Your task to perform on an android device: turn on location history Image 0: 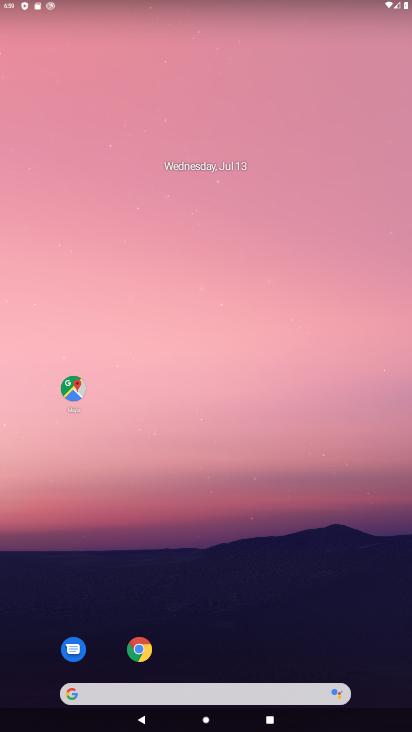
Step 0: drag from (225, 695) to (368, 294)
Your task to perform on an android device: turn on location history Image 1: 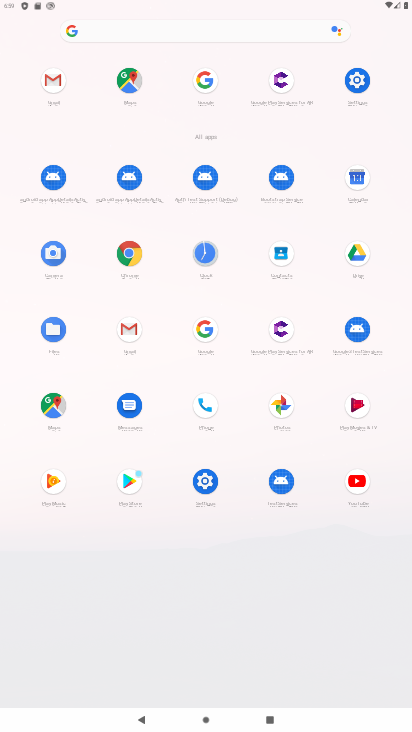
Step 1: click (359, 81)
Your task to perform on an android device: turn on location history Image 2: 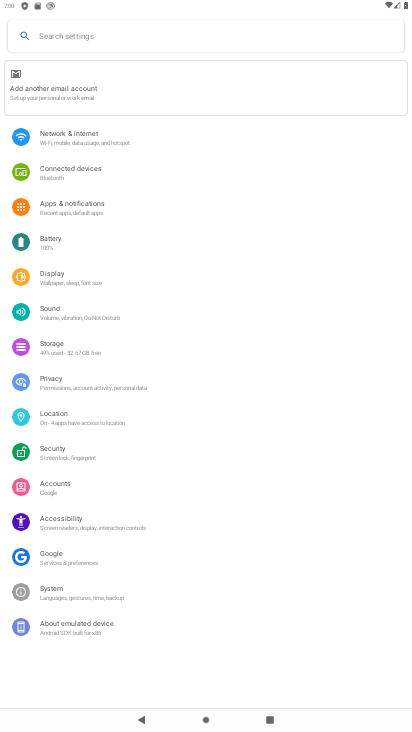
Step 2: click (63, 420)
Your task to perform on an android device: turn on location history Image 3: 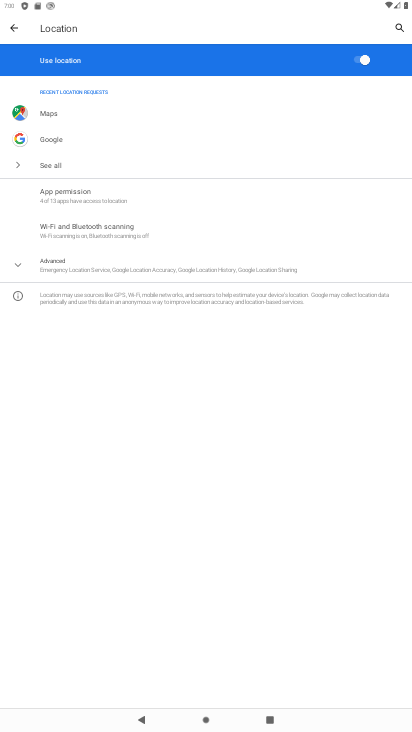
Step 3: click (149, 273)
Your task to perform on an android device: turn on location history Image 4: 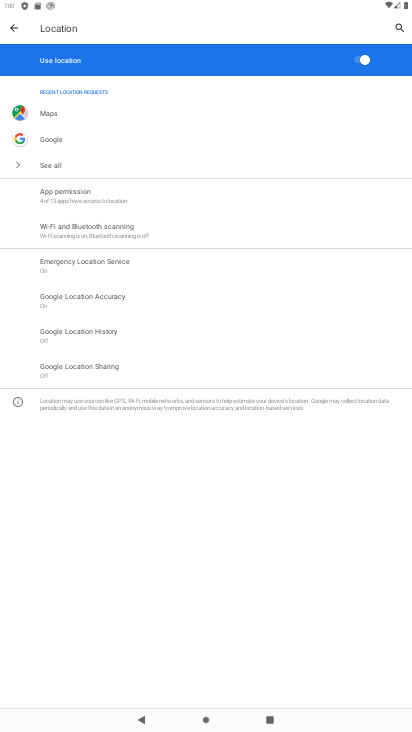
Step 4: click (97, 335)
Your task to perform on an android device: turn on location history Image 5: 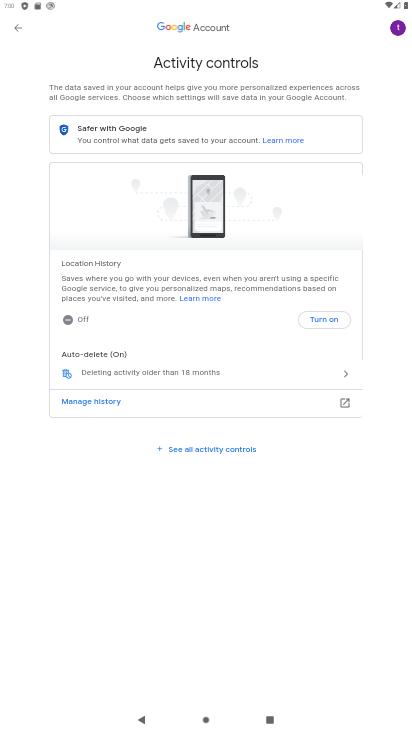
Step 5: click (320, 318)
Your task to perform on an android device: turn on location history Image 6: 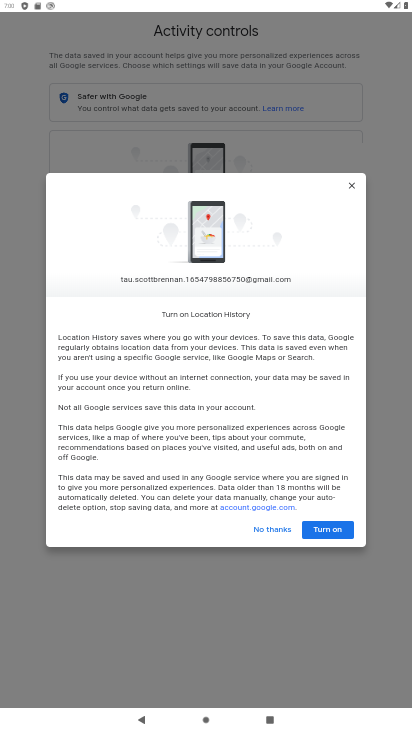
Step 6: click (324, 526)
Your task to perform on an android device: turn on location history Image 7: 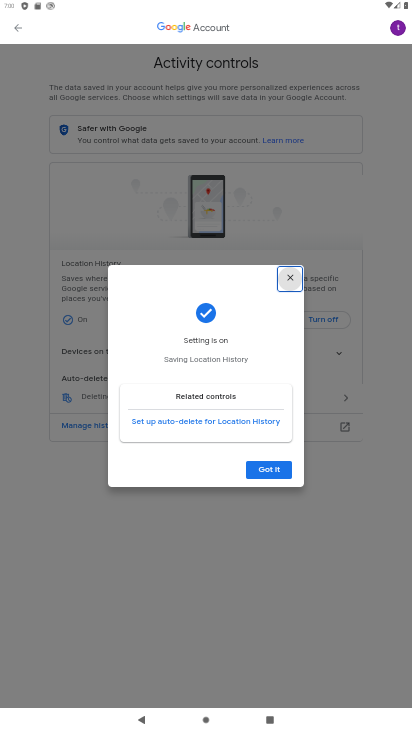
Step 7: click (267, 471)
Your task to perform on an android device: turn on location history Image 8: 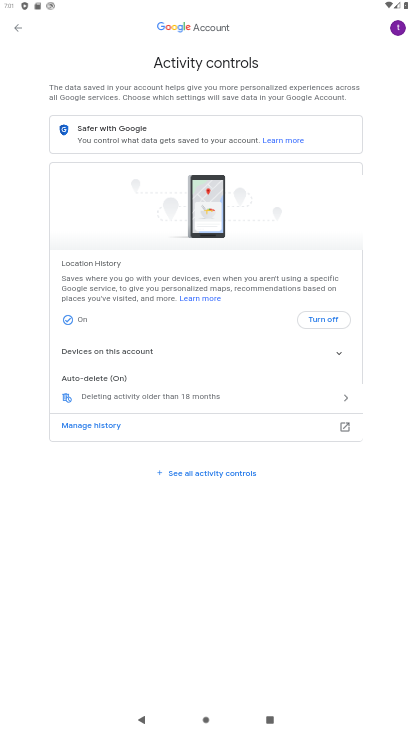
Step 8: task complete